Your task to perform on an android device: Open display settings Image 0: 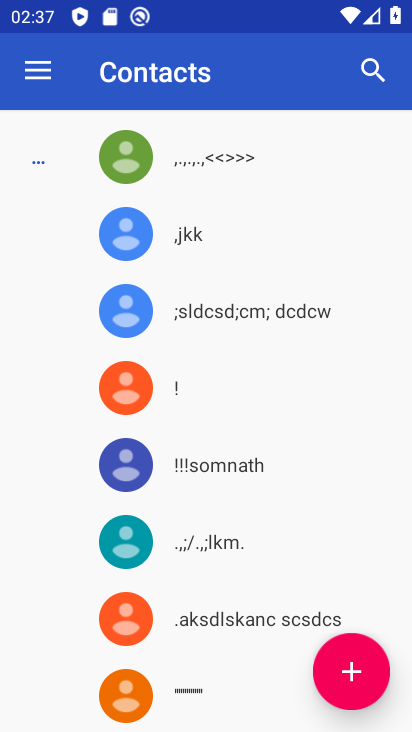
Step 0: press home button
Your task to perform on an android device: Open display settings Image 1: 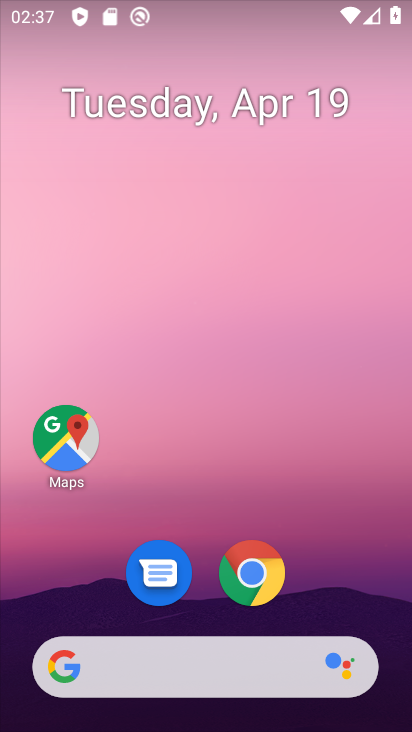
Step 1: drag from (331, 547) to (314, 99)
Your task to perform on an android device: Open display settings Image 2: 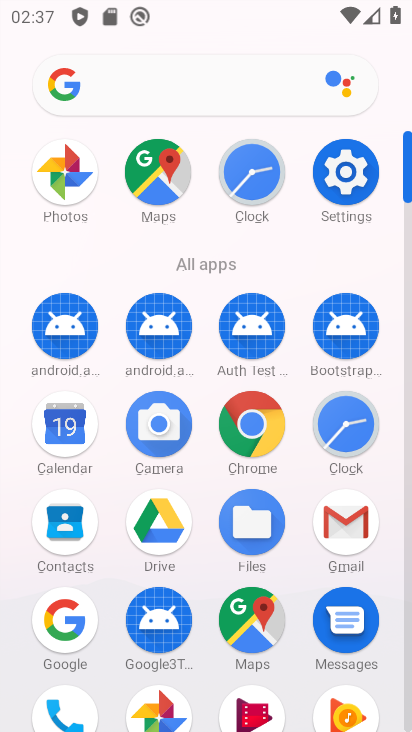
Step 2: click (345, 176)
Your task to perform on an android device: Open display settings Image 3: 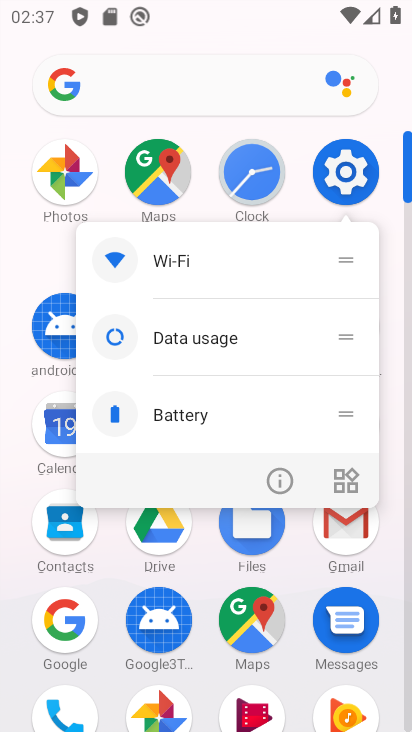
Step 3: click (338, 159)
Your task to perform on an android device: Open display settings Image 4: 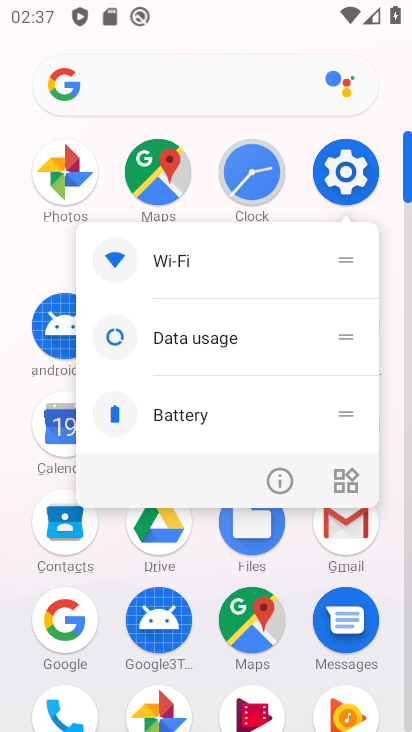
Step 4: click (338, 159)
Your task to perform on an android device: Open display settings Image 5: 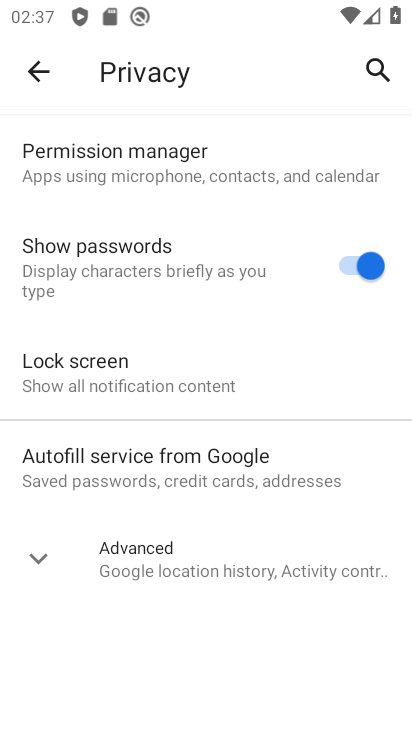
Step 5: drag from (271, 331) to (264, 658)
Your task to perform on an android device: Open display settings Image 6: 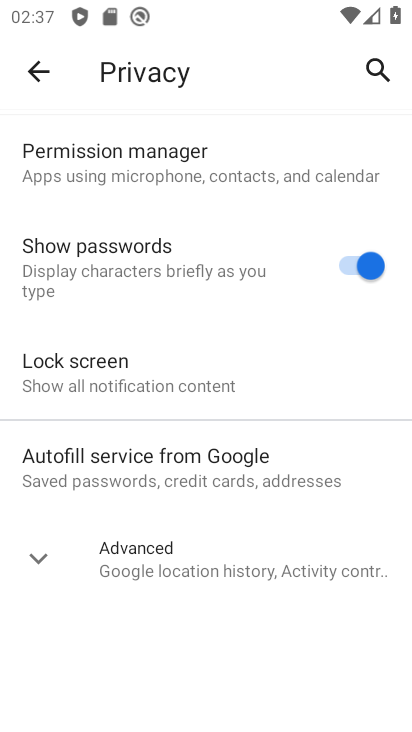
Step 6: click (36, 72)
Your task to perform on an android device: Open display settings Image 7: 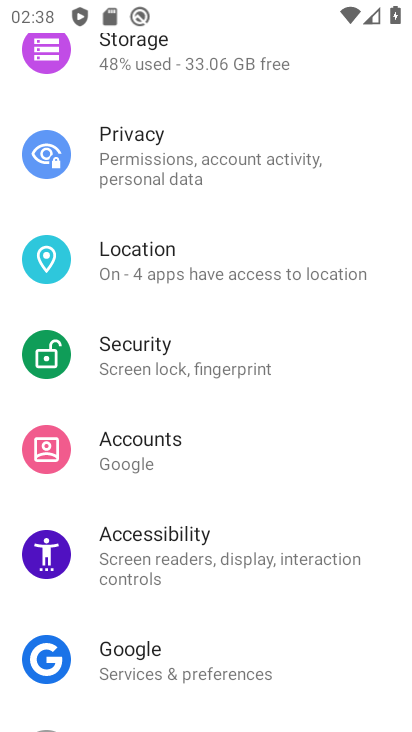
Step 7: drag from (244, 180) to (236, 560)
Your task to perform on an android device: Open display settings Image 8: 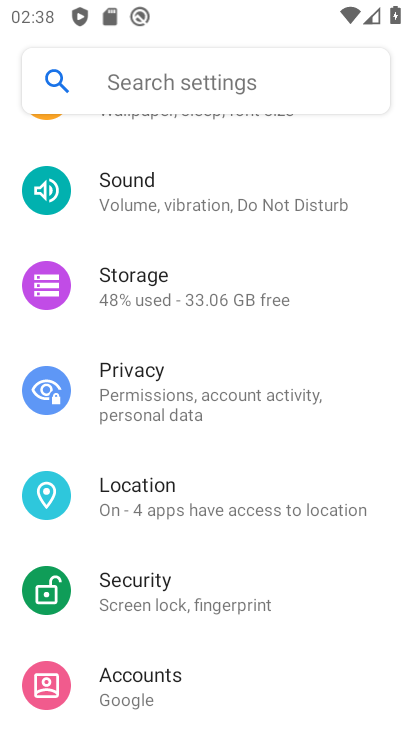
Step 8: drag from (290, 187) to (296, 547)
Your task to perform on an android device: Open display settings Image 9: 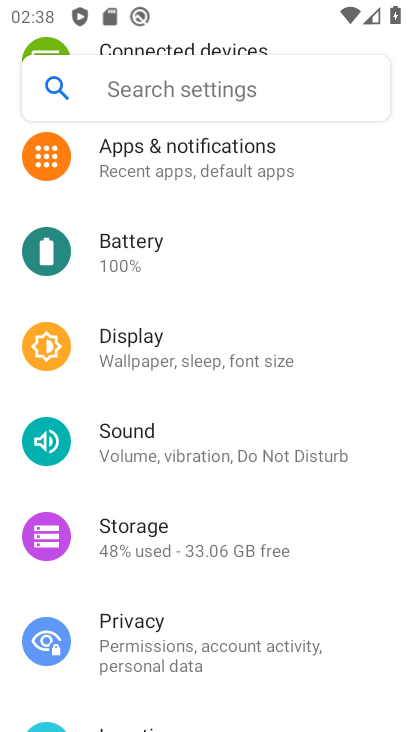
Step 9: drag from (277, 276) to (278, 550)
Your task to perform on an android device: Open display settings Image 10: 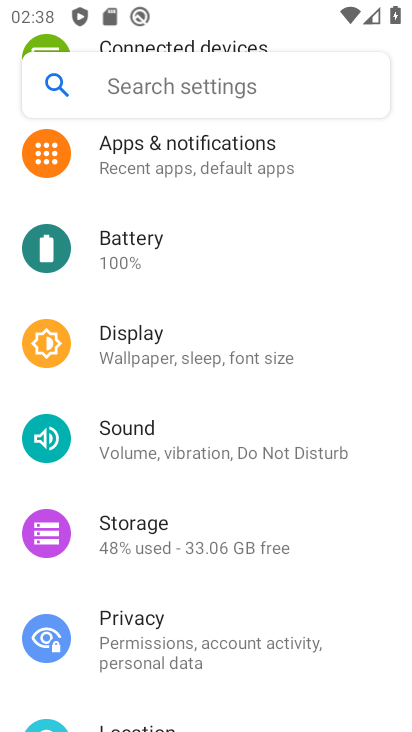
Step 10: click (162, 346)
Your task to perform on an android device: Open display settings Image 11: 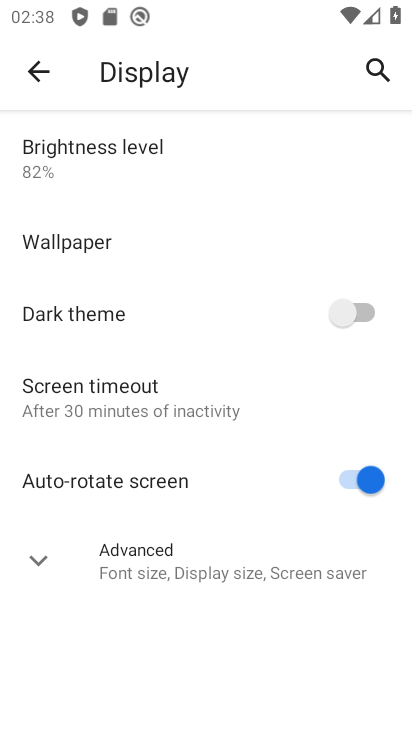
Step 11: task complete